Your task to perform on an android device: change text size in settings app Image 0: 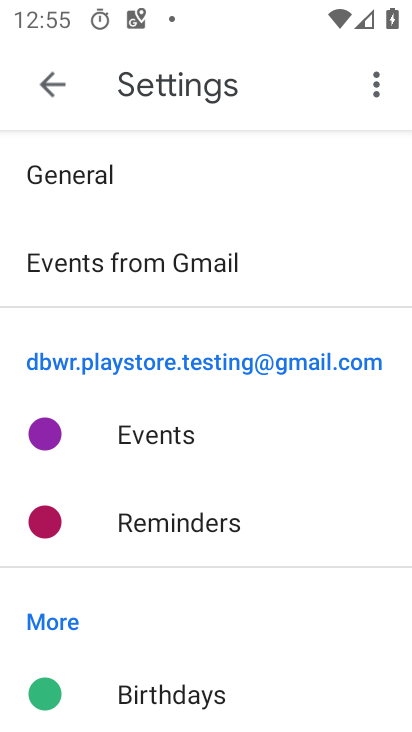
Step 0: press back button
Your task to perform on an android device: change text size in settings app Image 1: 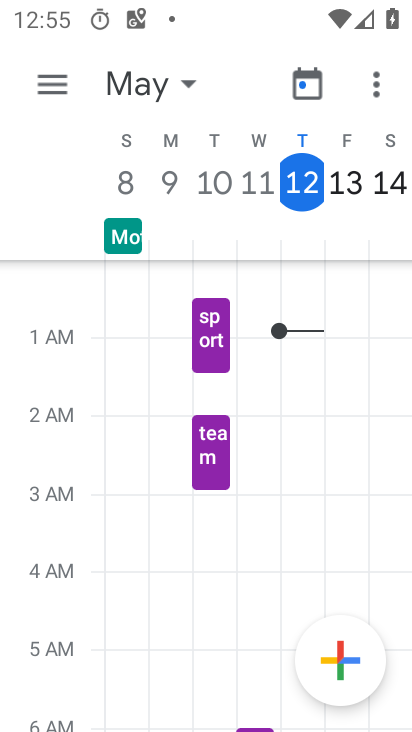
Step 1: press home button
Your task to perform on an android device: change text size in settings app Image 2: 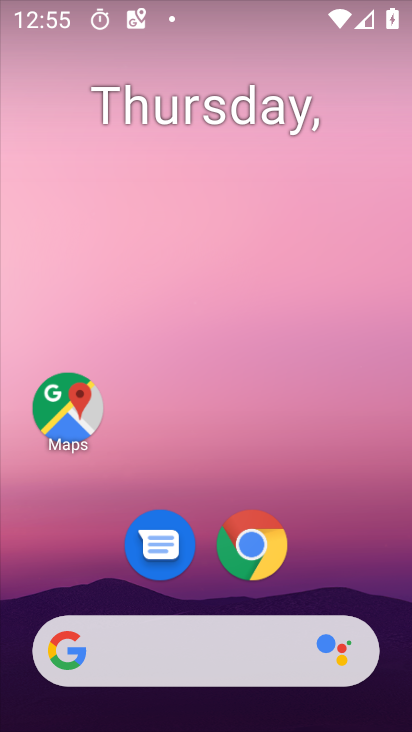
Step 2: drag from (39, 612) to (310, 137)
Your task to perform on an android device: change text size in settings app Image 3: 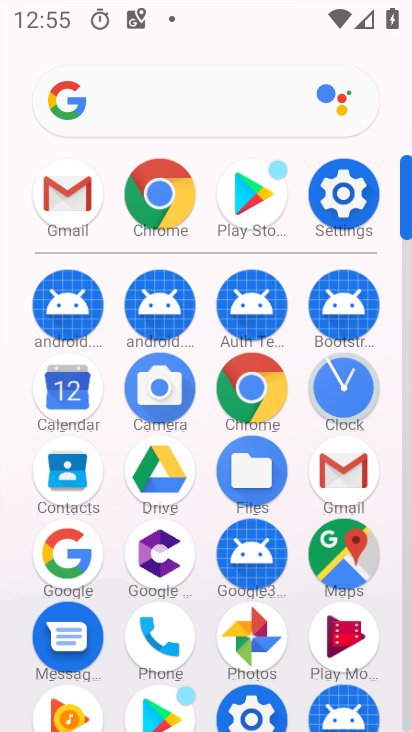
Step 3: click (346, 206)
Your task to perform on an android device: change text size in settings app Image 4: 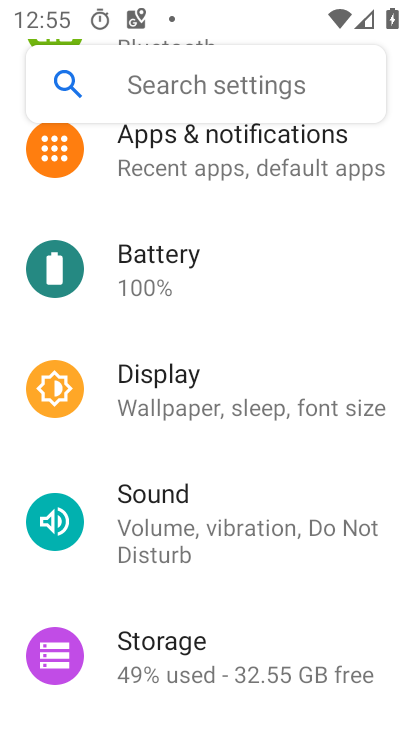
Step 4: click (213, 413)
Your task to perform on an android device: change text size in settings app Image 5: 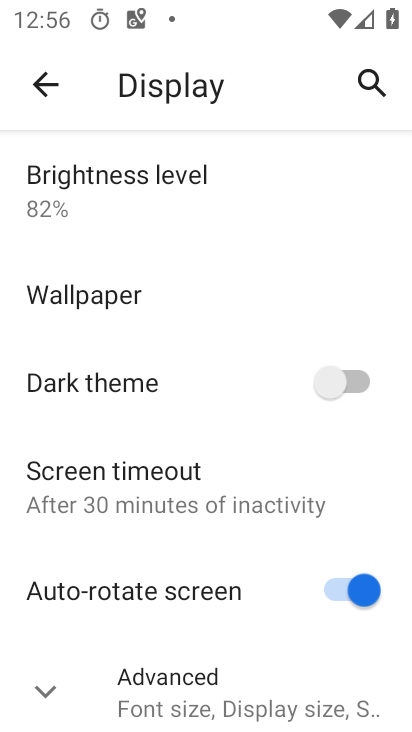
Step 5: click (194, 686)
Your task to perform on an android device: change text size in settings app Image 6: 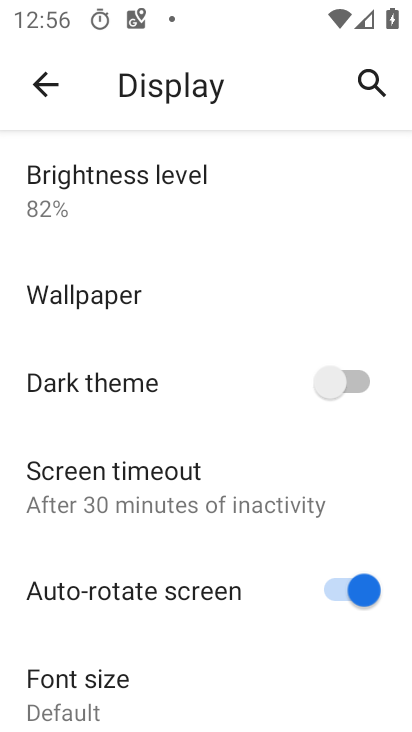
Step 6: click (132, 698)
Your task to perform on an android device: change text size in settings app Image 7: 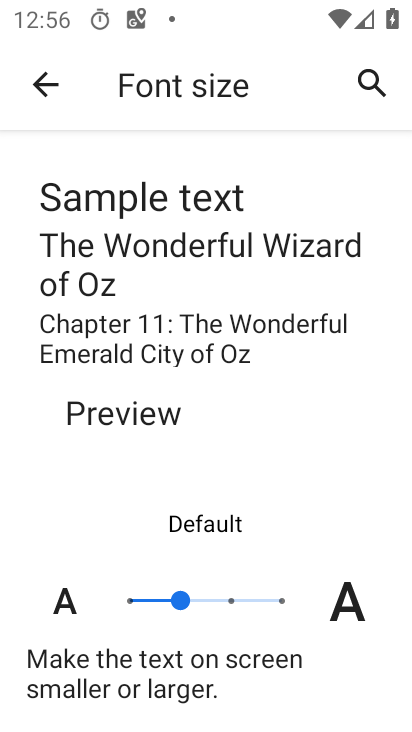
Step 7: click (235, 598)
Your task to perform on an android device: change text size in settings app Image 8: 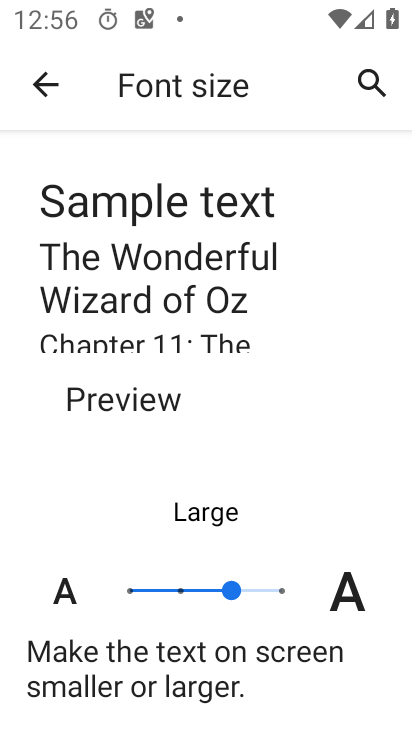
Step 8: task complete